Your task to perform on an android device: turn off priority inbox in the gmail app Image 0: 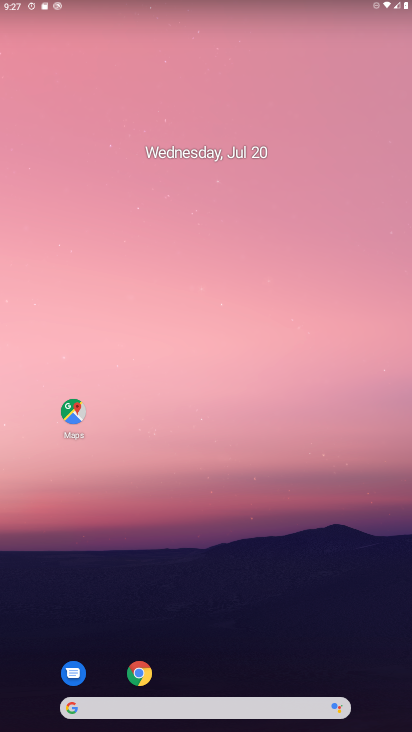
Step 0: drag from (308, 547) to (150, 55)
Your task to perform on an android device: turn off priority inbox in the gmail app Image 1: 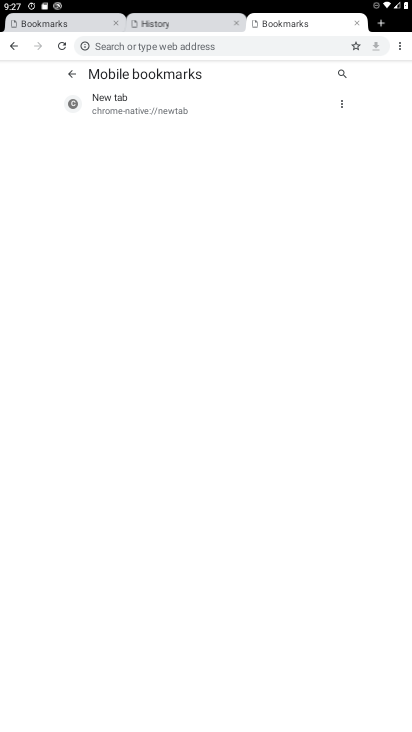
Step 1: press home button
Your task to perform on an android device: turn off priority inbox in the gmail app Image 2: 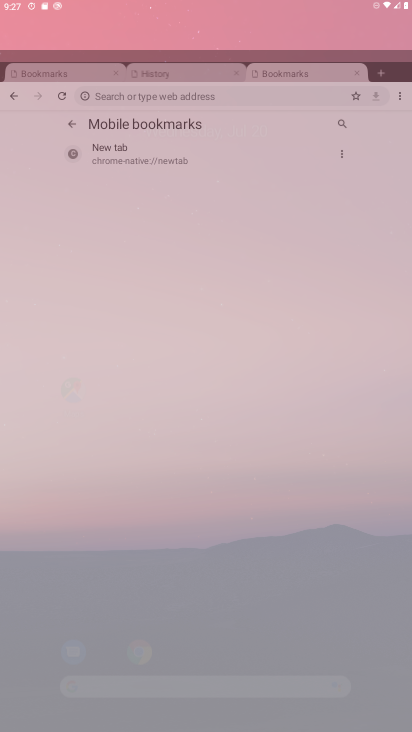
Step 2: drag from (368, 693) to (142, 5)
Your task to perform on an android device: turn off priority inbox in the gmail app Image 3: 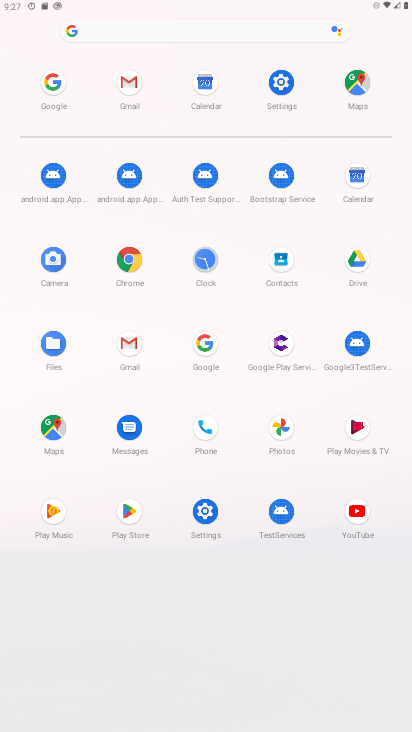
Step 3: click (130, 349)
Your task to perform on an android device: turn off priority inbox in the gmail app Image 4: 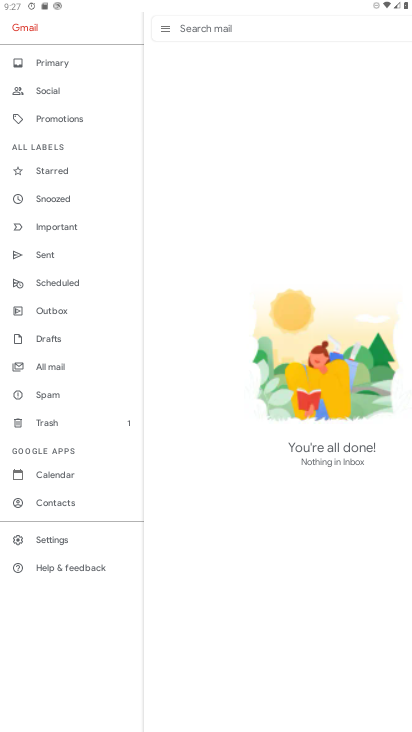
Step 4: click (46, 541)
Your task to perform on an android device: turn off priority inbox in the gmail app Image 5: 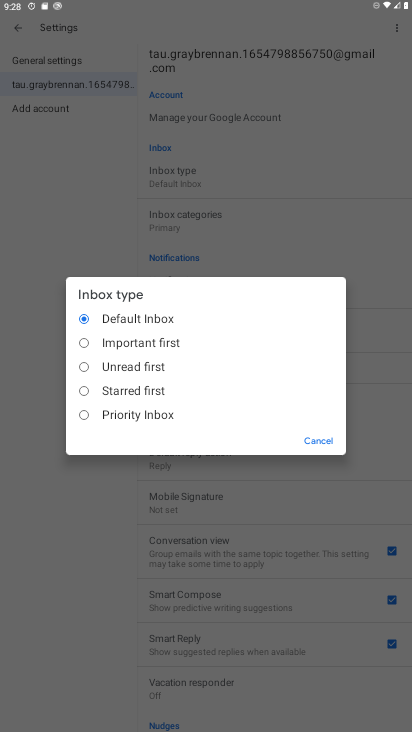
Step 5: task complete